Your task to perform on an android device: Go to wifi settings Image 0: 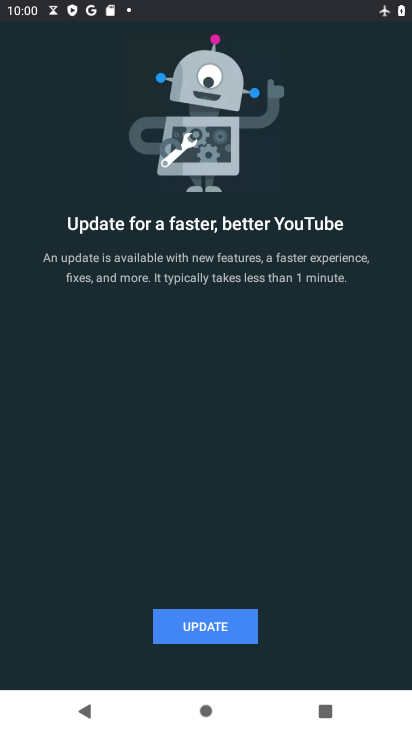
Step 0: press home button
Your task to perform on an android device: Go to wifi settings Image 1: 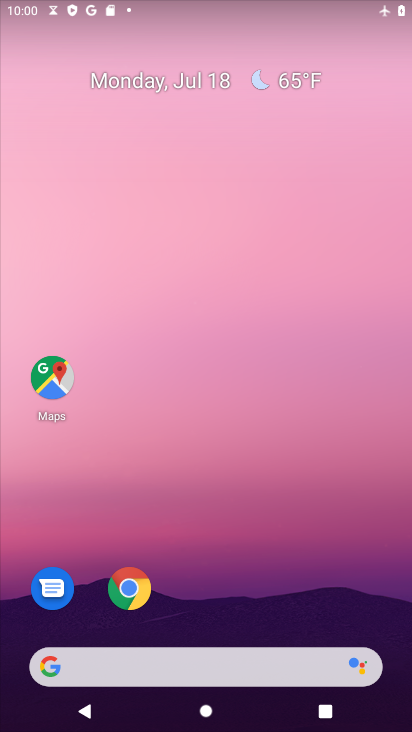
Step 1: drag from (221, 525) to (301, 192)
Your task to perform on an android device: Go to wifi settings Image 2: 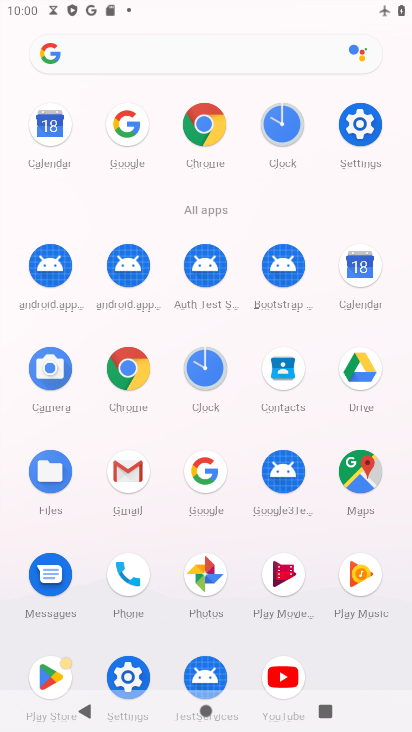
Step 2: click (360, 122)
Your task to perform on an android device: Go to wifi settings Image 3: 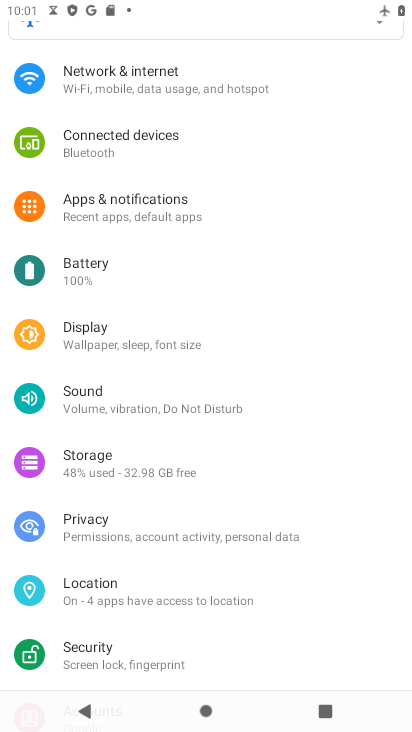
Step 3: click (173, 87)
Your task to perform on an android device: Go to wifi settings Image 4: 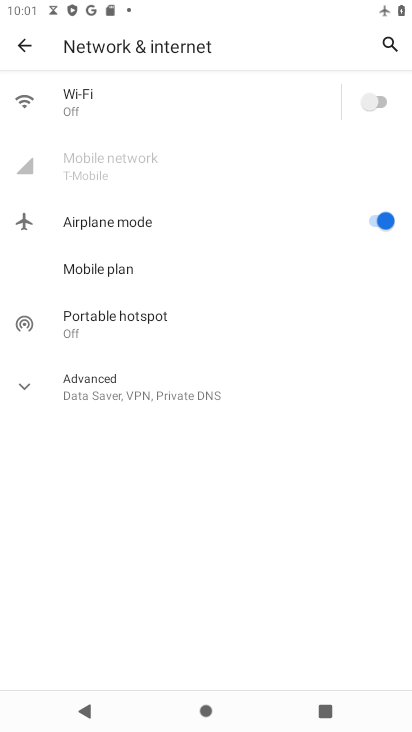
Step 4: click (74, 108)
Your task to perform on an android device: Go to wifi settings Image 5: 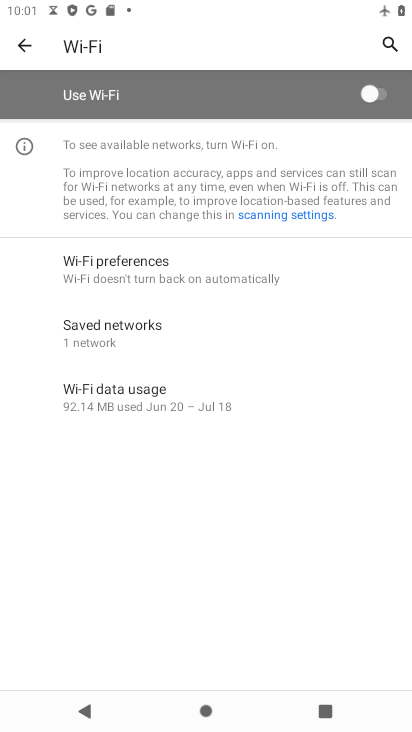
Step 5: task complete